Your task to perform on an android device: Open Reddit.com Image 0: 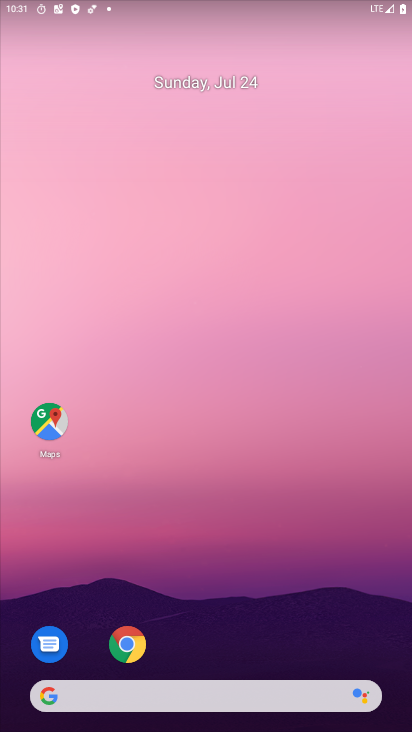
Step 0: drag from (161, 664) to (232, 85)
Your task to perform on an android device: Open Reddit.com Image 1: 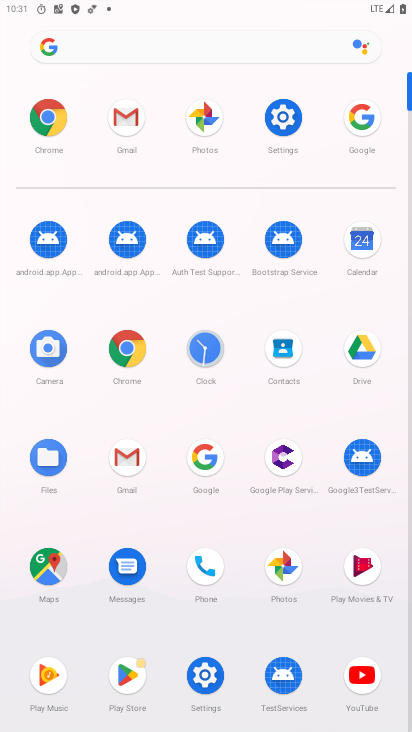
Step 1: click (213, 457)
Your task to perform on an android device: Open Reddit.com Image 2: 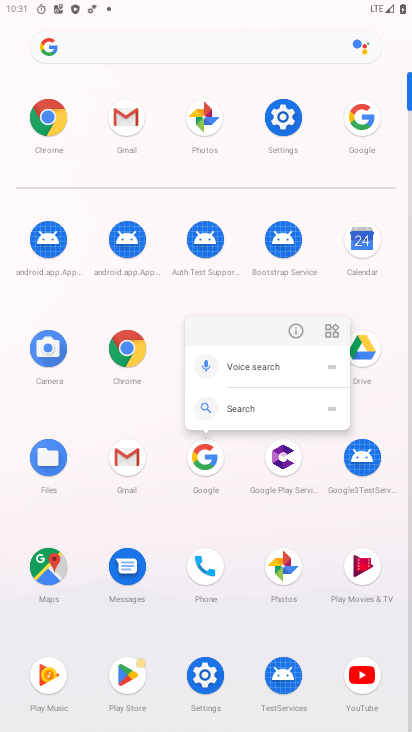
Step 2: click (213, 457)
Your task to perform on an android device: Open Reddit.com Image 3: 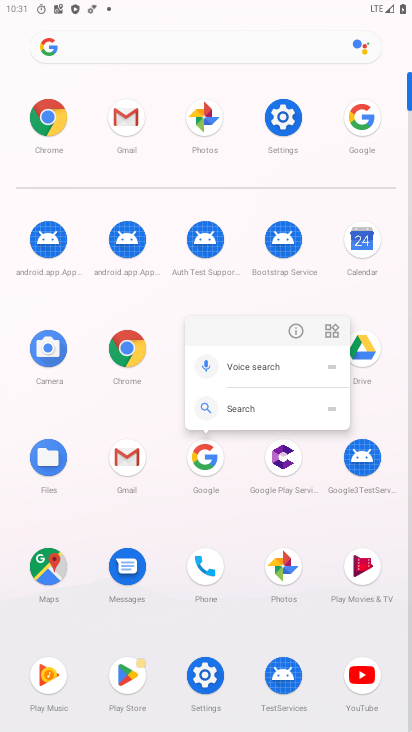
Step 3: click (200, 466)
Your task to perform on an android device: Open Reddit.com Image 4: 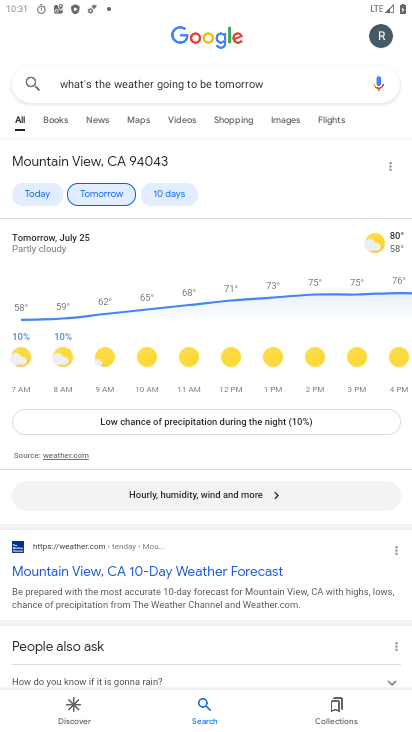
Step 4: click (285, 86)
Your task to perform on an android device: Open Reddit.com Image 5: 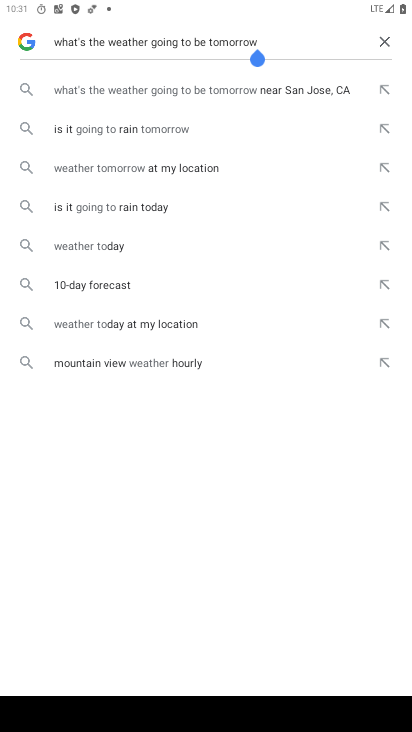
Step 5: click (376, 43)
Your task to perform on an android device: Open Reddit.com Image 6: 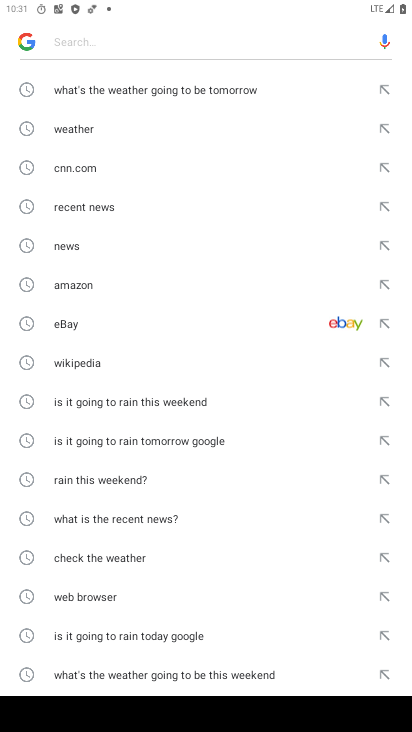
Step 6: click (134, 44)
Your task to perform on an android device: Open Reddit.com Image 7: 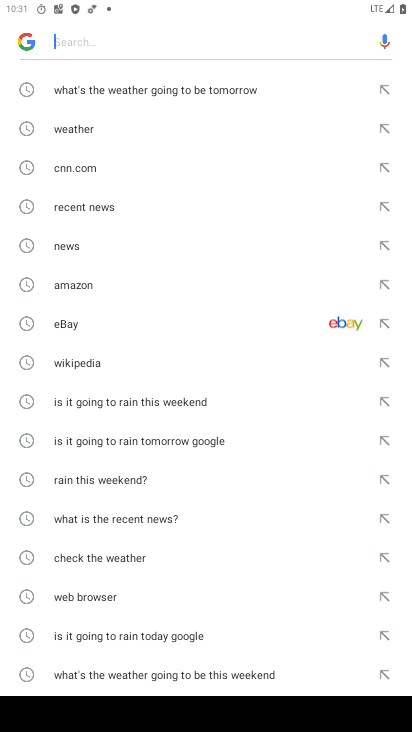
Step 7: drag from (107, 661) to (107, 268)
Your task to perform on an android device: Open Reddit.com Image 8: 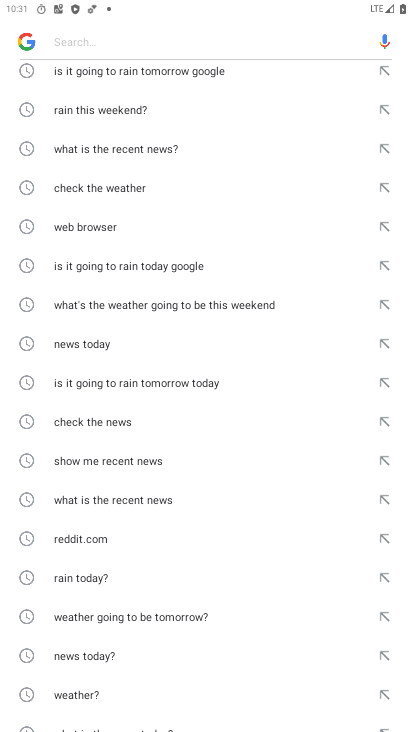
Step 8: click (103, 543)
Your task to perform on an android device: Open Reddit.com Image 9: 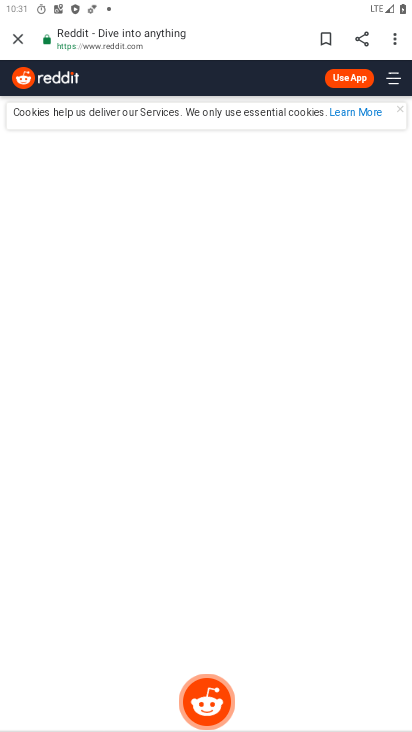
Step 9: task complete